Your task to perform on an android device: turn on sleep mode Image 0: 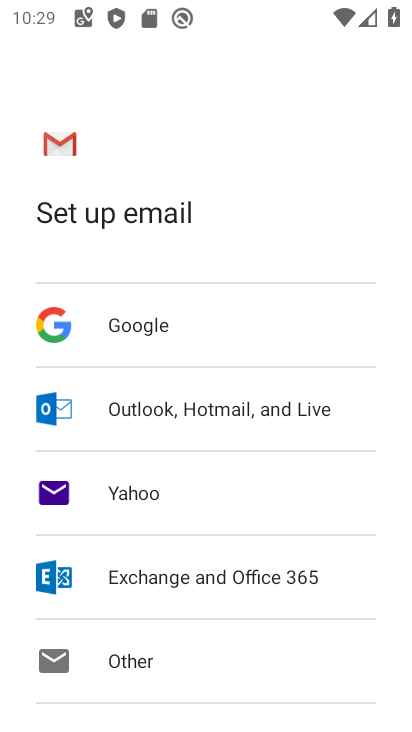
Step 0: press back button
Your task to perform on an android device: turn on sleep mode Image 1: 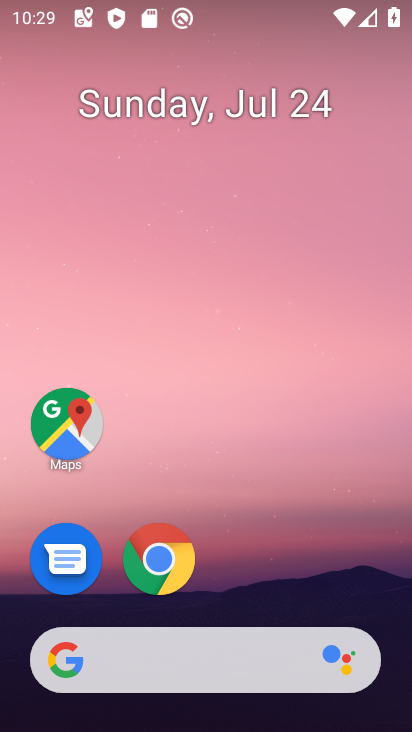
Step 1: drag from (231, 603) to (330, 0)
Your task to perform on an android device: turn on sleep mode Image 2: 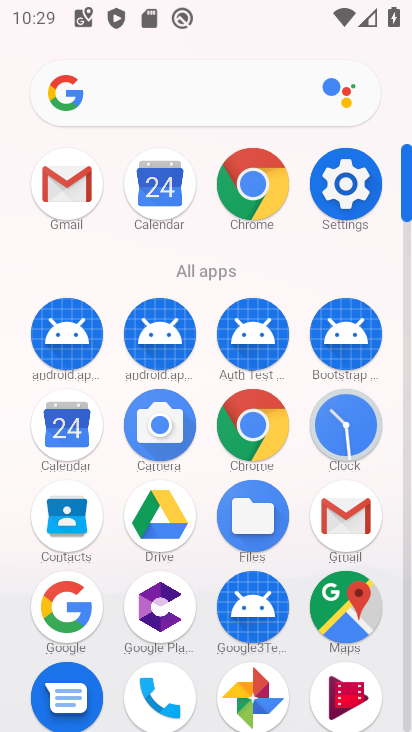
Step 2: click (353, 182)
Your task to perform on an android device: turn on sleep mode Image 3: 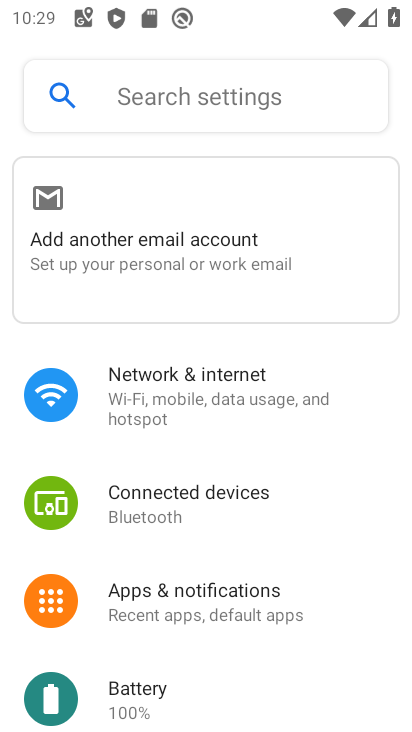
Step 3: click (195, 85)
Your task to perform on an android device: turn on sleep mode Image 4: 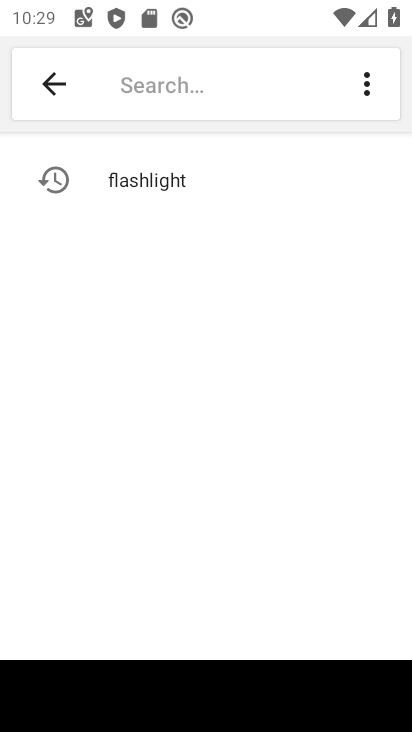
Step 4: type "sleep mode"
Your task to perform on an android device: turn on sleep mode Image 5: 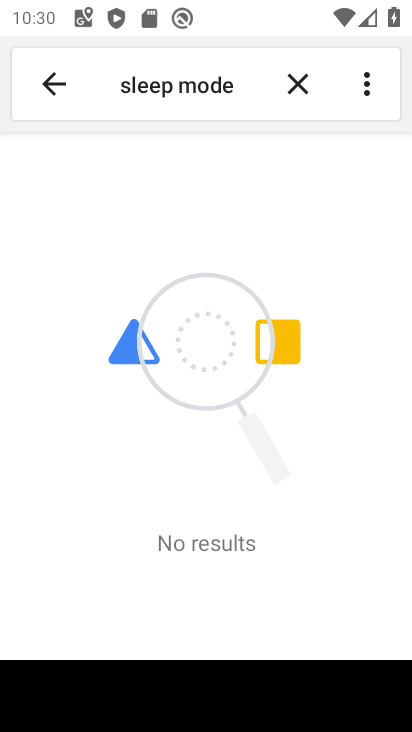
Step 5: task complete